Your task to perform on an android device: toggle airplane mode Image 0: 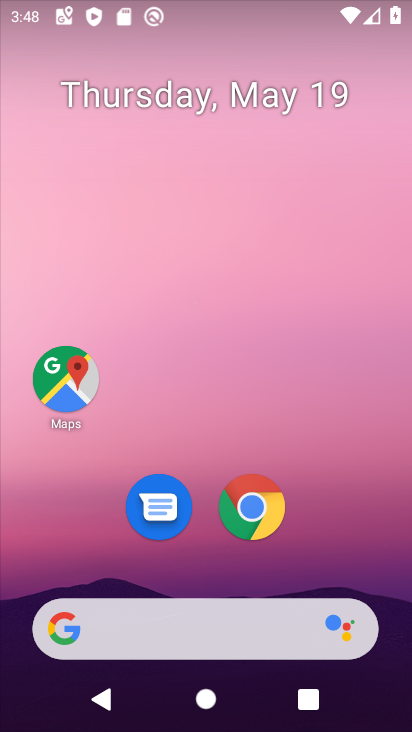
Step 0: drag from (389, 674) to (411, 90)
Your task to perform on an android device: toggle airplane mode Image 1: 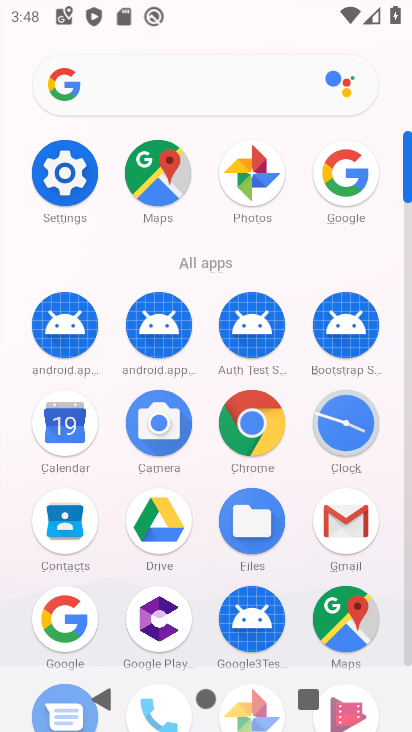
Step 1: click (66, 189)
Your task to perform on an android device: toggle airplane mode Image 2: 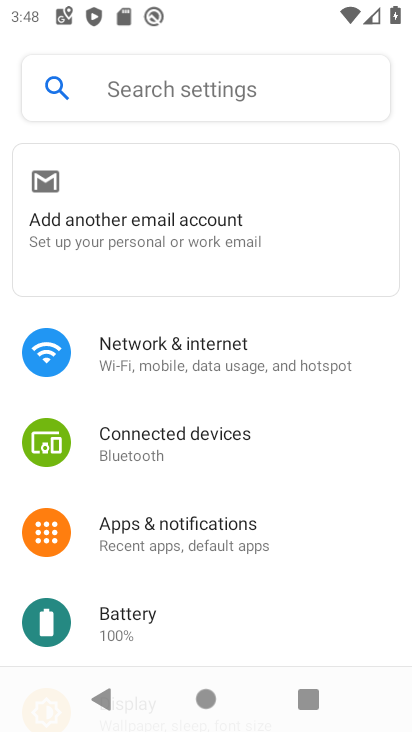
Step 2: click (163, 350)
Your task to perform on an android device: toggle airplane mode Image 3: 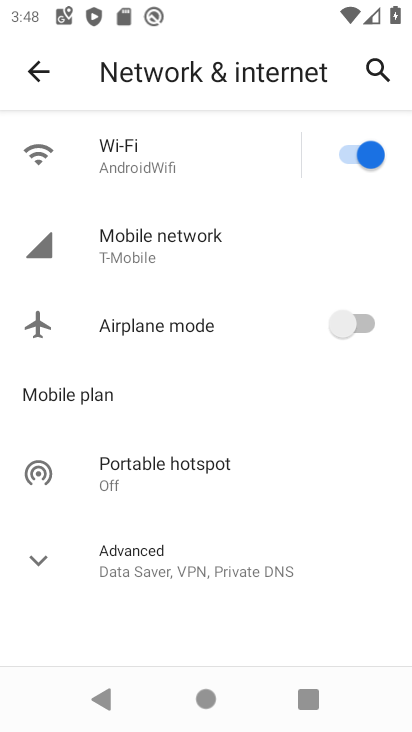
Step 3: click (367, 323)
Your task to perform on an android device: toggle airplane mode Image 4: 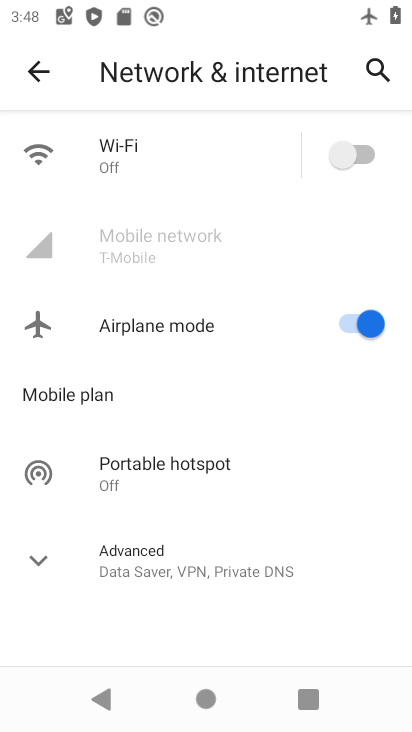
Step 4: task complete